Your task to perform on an android device: turn off sleep mode Image 0: 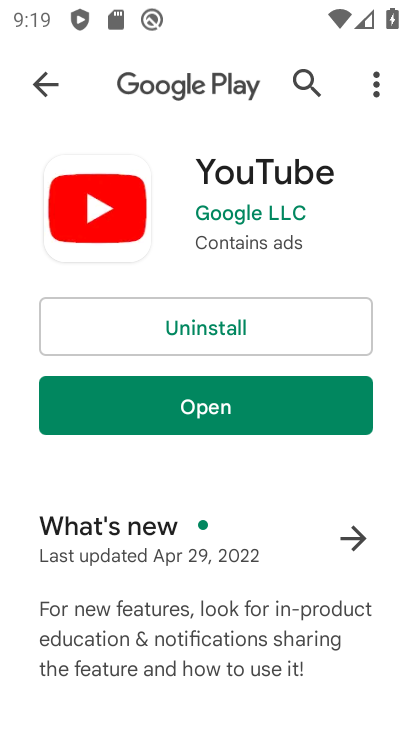
Step 0: press home button
Your task to perform on an android device: turn off sleep mode Image 1: 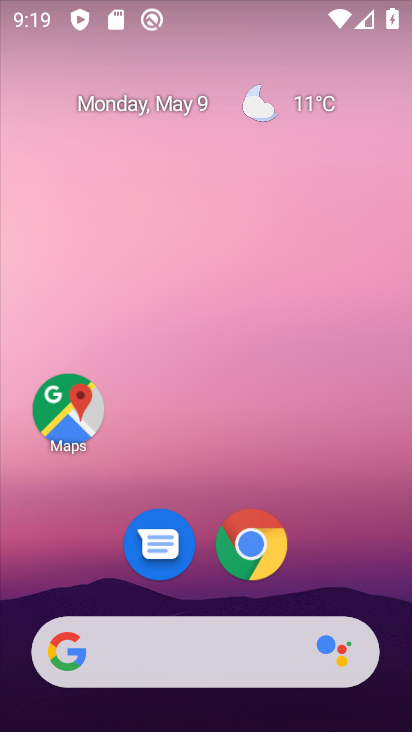
Step 1: drag from (402, 648) to (346, 191)
Your task to perform on an android device: turn off sleep mode Image 2: 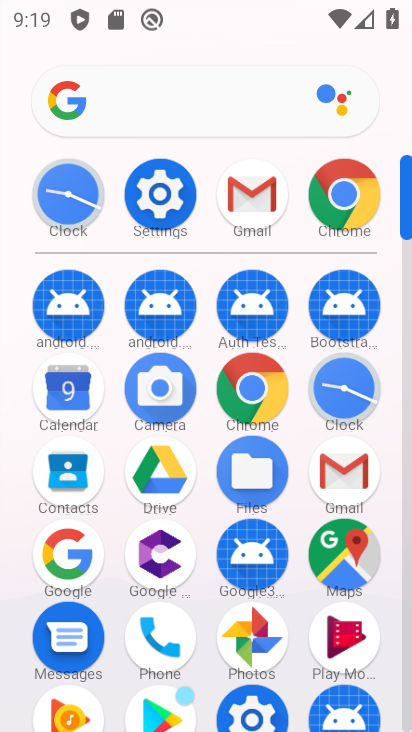
Step 2: click (153, 190)
Your task to perform on an android device: turn off sleep mode Image 3: 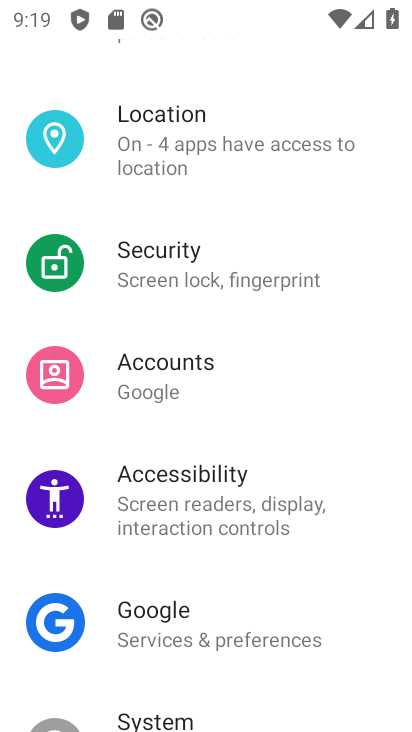
Step 3: drag from (365, 646) to (345, 324)
Your task to perform on an android device: turn off sleep mode Image 4: 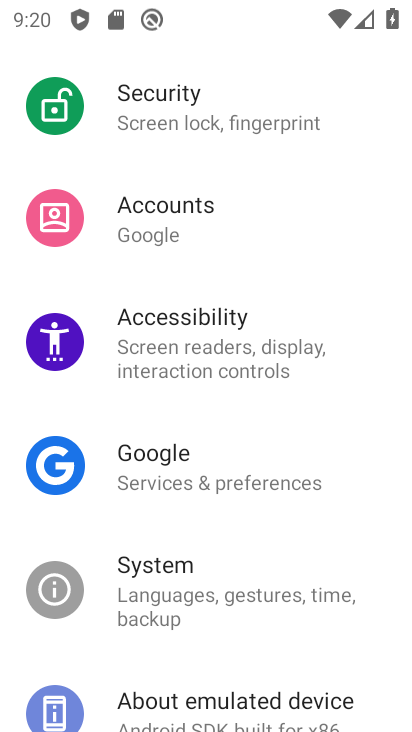
Step 4: drag from (375, 654) to (393, 294)
Your task to perform on an android device: turn off sleep mode Image 5: 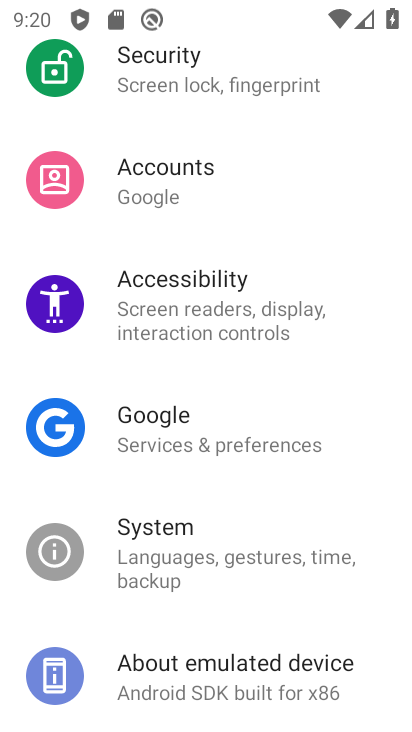
Step 5: drag from (381, 203) to (392, 481)
Your task to perform on an android device: turn off sleep mode Image 6: 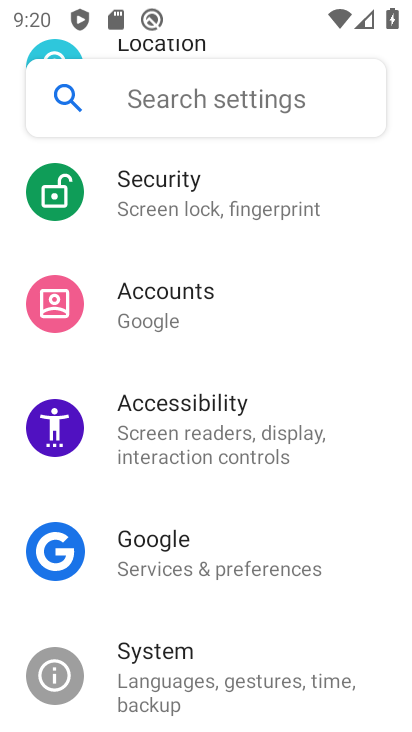
Step 6: drag from (400, 222) to (409, 370)
Your task to perform on an android device: turn off sleep mode Image 7: 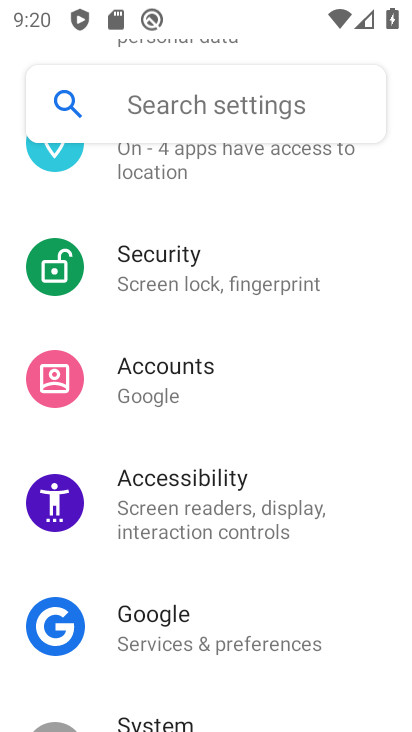
Step 7: drag from (383, 300) to (395, 634)
Your task to perform on an android device: turn off sleep mode Image 8: 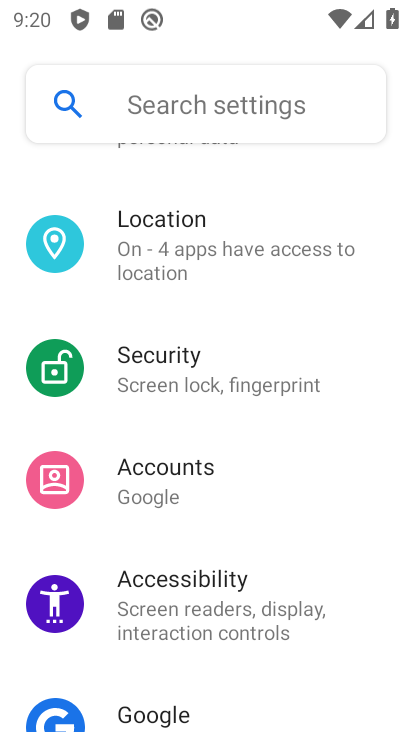
Step 8: drag from (404, 235) to (394, 560)
Your task to perform on an android device: turn off sleep mode Image 9: 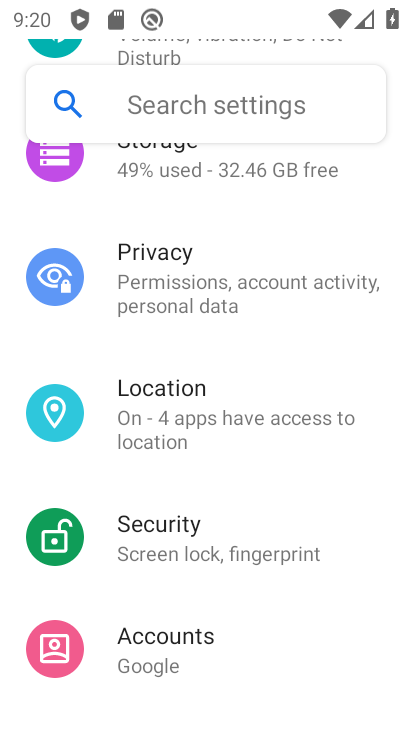
Step 9: drag from (401, 242) to (392, 547)
Your task to perform on an android device: turn off sleep mode Image 10: 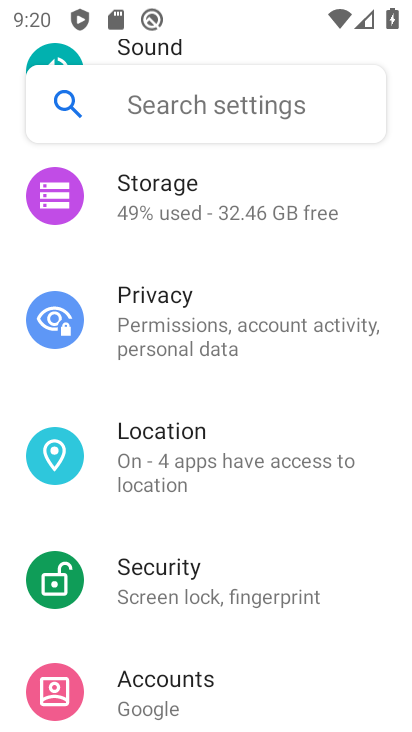
Step 10: drag from (397, 154) to (381, 626)
Your task to perform on an android device: turn off sleep mode Image 11: 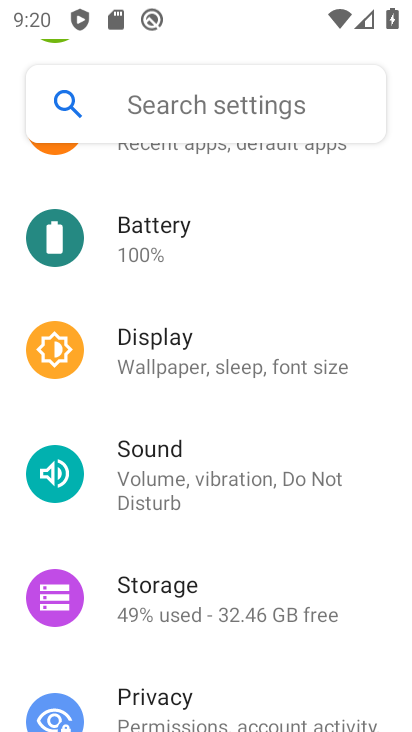
Step 11: click (159, 348)
Your task to perform on an android device: turn off sleep mode Image 12: 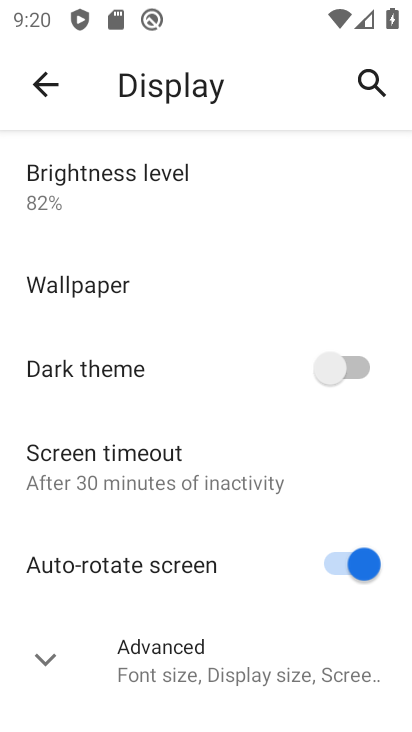
Step 12: click (153, 478)
Your task to perform on an android device: turn off sleep mode Image 13: 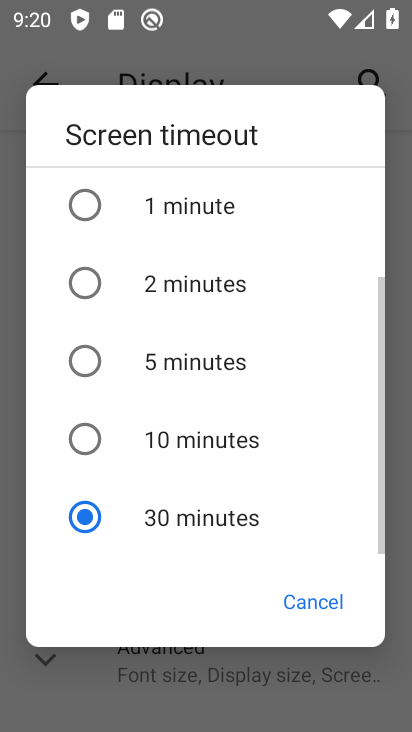
Step 13: task complete